Your task to perform on an android device: move a message to another label in the gmail app Image 0: 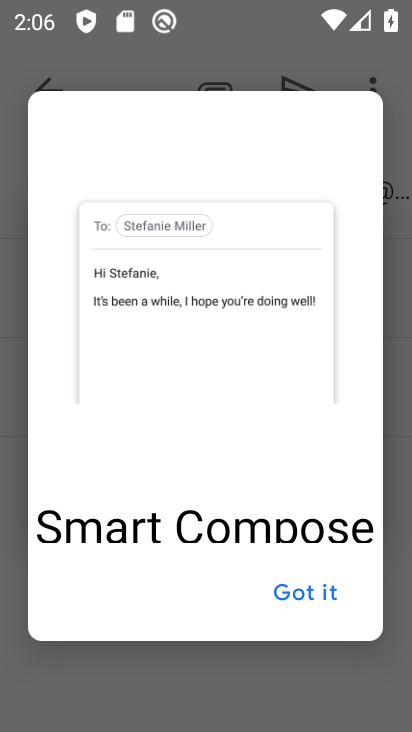
Step 0: press home button
Your task to perform on an android device: move a message to another label in the gmail app Image 1: 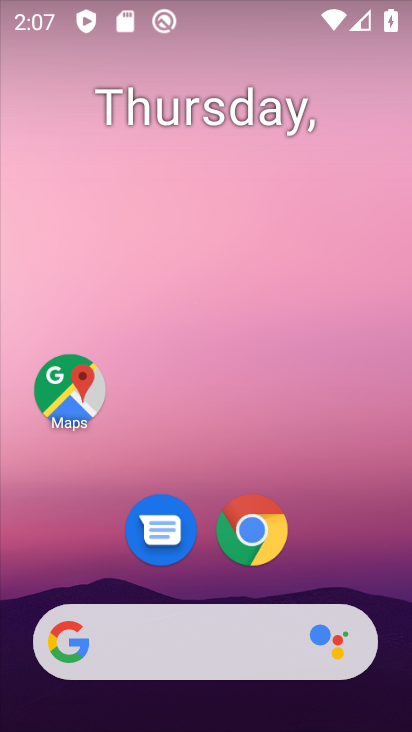
Step 1: drag from (228, 726) to (231, 83)
Your task to perform on an android device: move a message to another label in the gmail app Image 2: 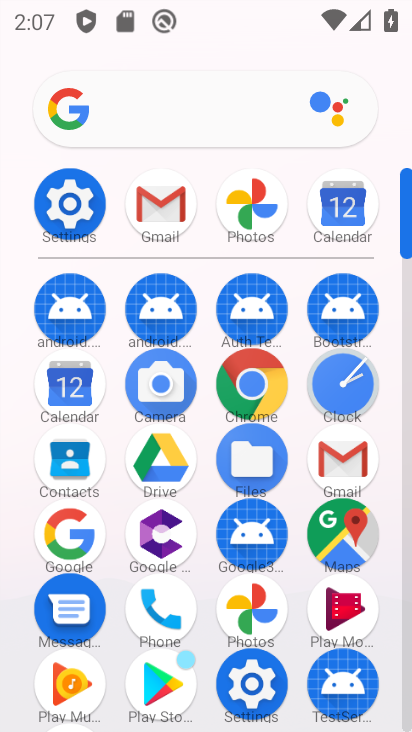
Step 2: click (352, 458)
Your task to perform on an android device: move a message to another label in the gmail app Image 3: 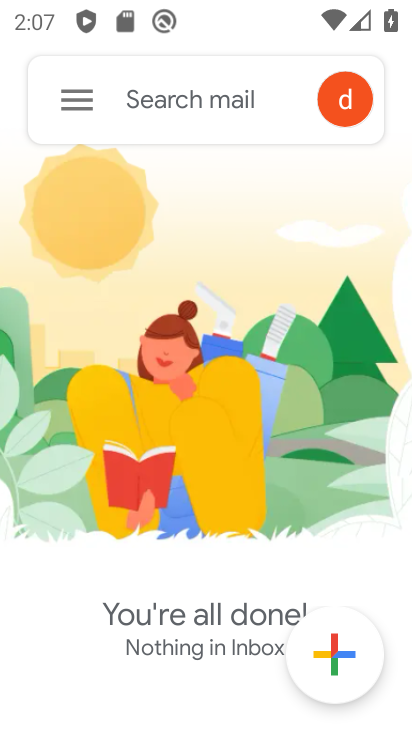
Step 3: task complete